Your task to perform on an android device: turn off smart reply in the gmail app Image 0: 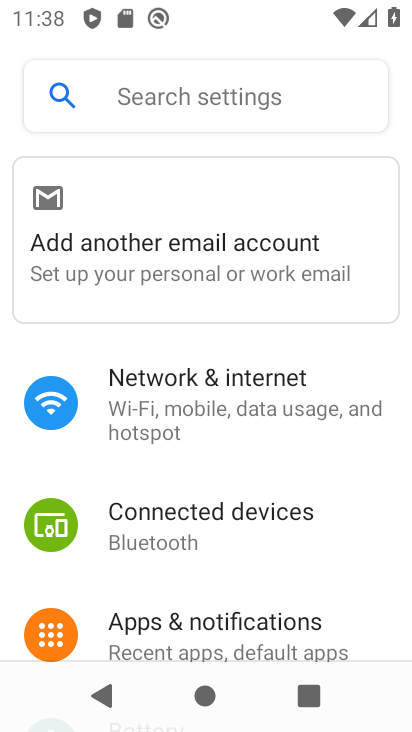
Step 0: press home button
Your task to perform on an android device: turn off smart reply in the gmail app Image 1: 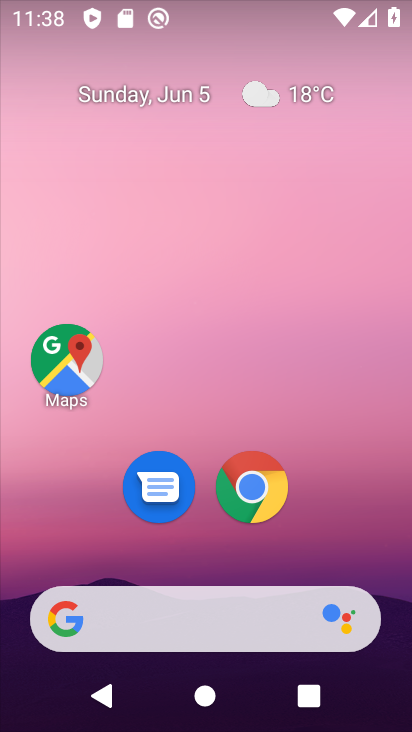
Step 1: drag from (341, 520) to (336, 175)
Your task to perform on an android device: turn off smart reply in the gmail app Image 2: 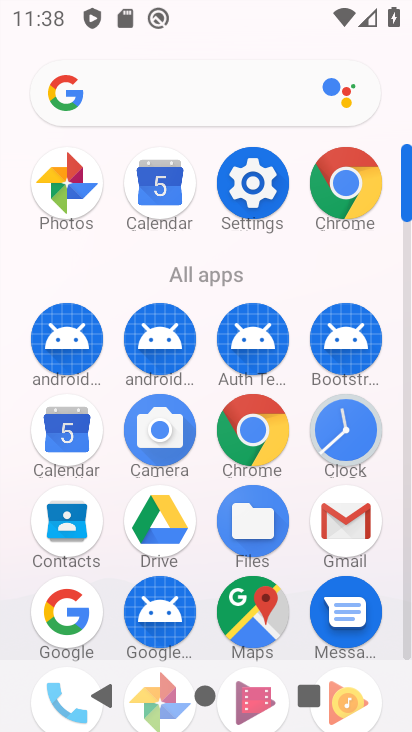
Step 2: click (348, 520)
Your task to perform on an android device: turn off smart reply in the gmail app Image 3: 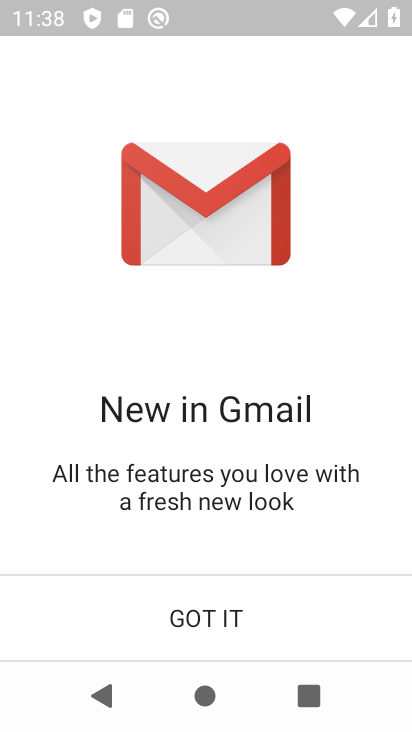
Step 3: click (218, 624)
Your task to perform on an android device: turn off smart reply in the gmail app Image 4: 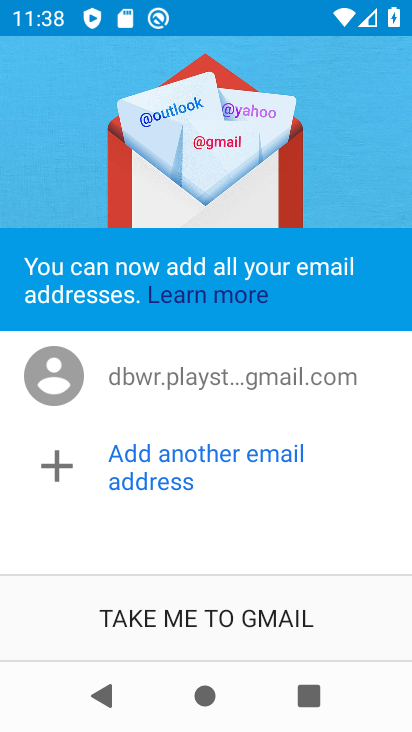
Step 4: click (216, 623)
Your task to perform on an android device: turn off smart reply in the gmail app Image 5: 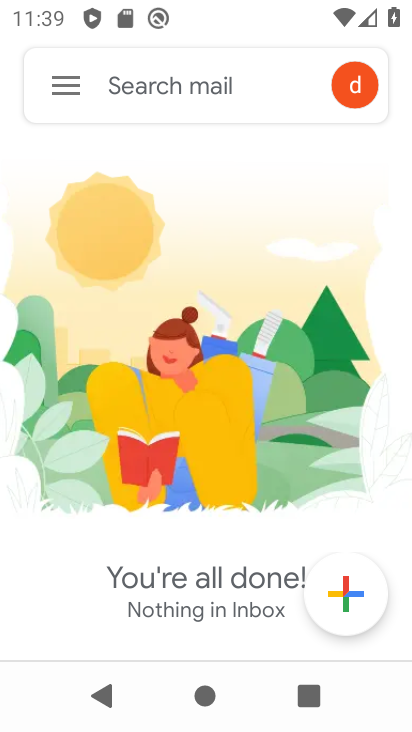
Step 5: click (58, 84)
Your task to perform on an android device: turn off smart reply in the gmail app Image 6: 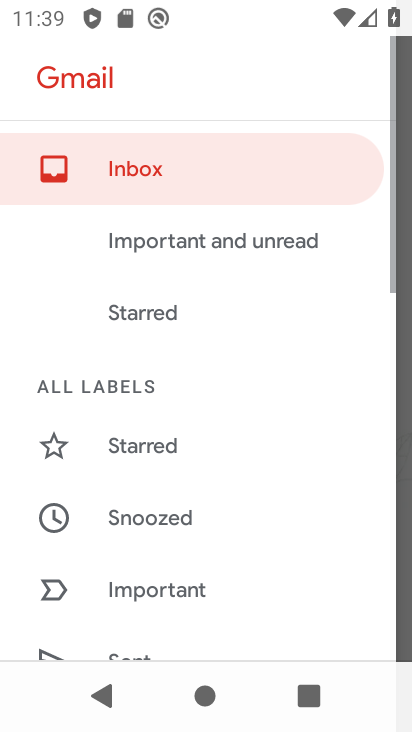
Step 6: drag from (137, 614) to (197, 214)
Your task to perform on an android device: turn off smart reply in the gmail app Image 7: 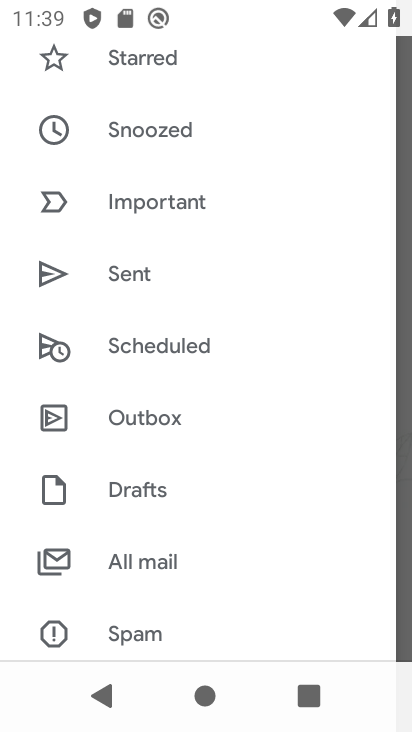
Step 7: drag from (199, 561) to (280, 138)
Your task to perform on an android device: turn off smart reply in the gmail app Image 8: 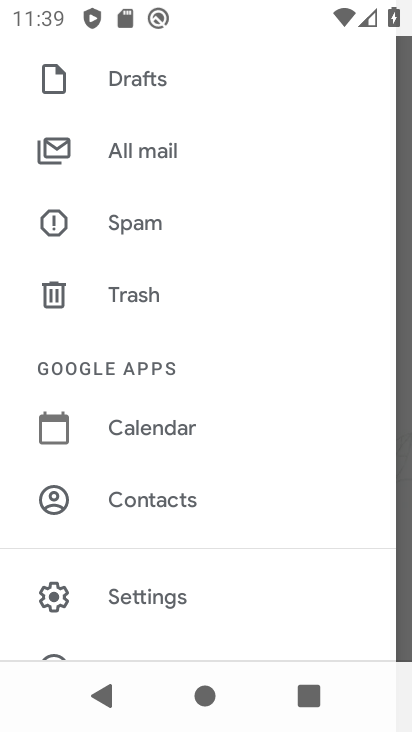
Step 8: click (186, 597)
Your task to perform on an android device: turn off smart reply in the gmail app Image 9: 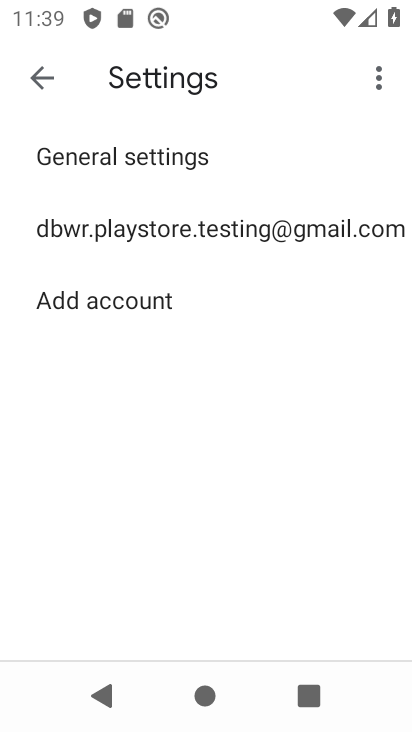
Step 9: click (204, 235)
Your task to perform on an android device: turn off smart reply in the gmail app Image 10: 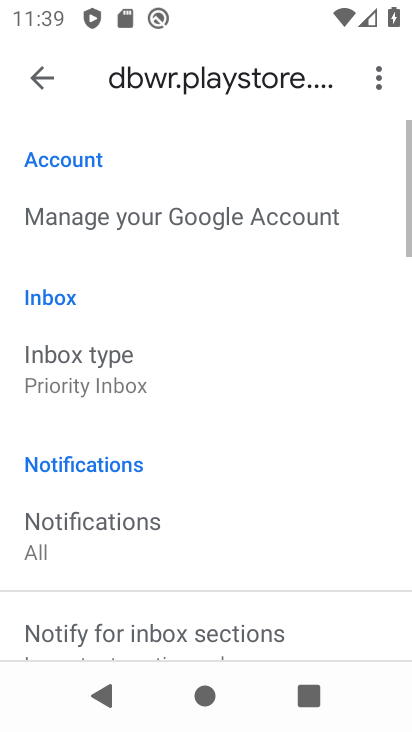
Step 10: drag from (211, 593) to (261, 204)
Your task to perform on an android device: turn off smart reply in the gmail app Image 11: 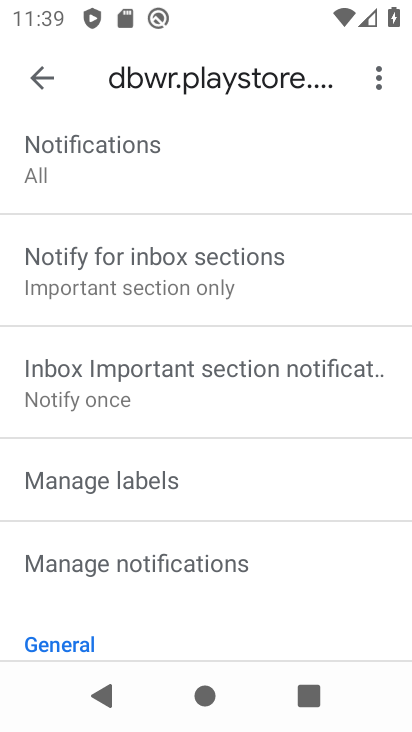
Step 11: drag from (189, 620) to (242, 231)
Your task to perform on an android device: turn off smart reply in the gmail app Image 12: 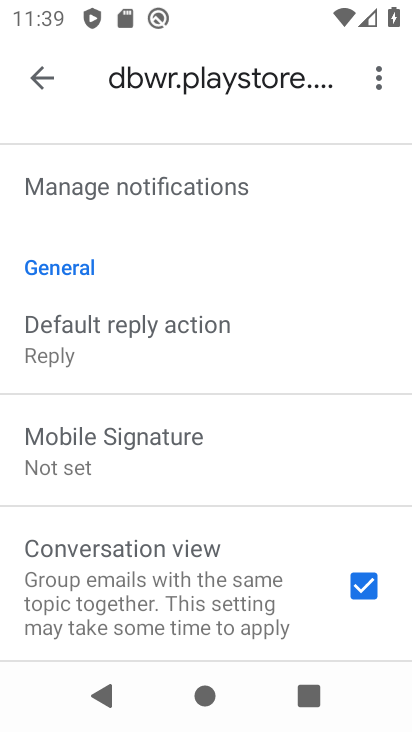
Step 12: drag from (274, 561) to (338, 172)
Your task to perform on an android device: turn off smart reply in the gmail app Image 13: 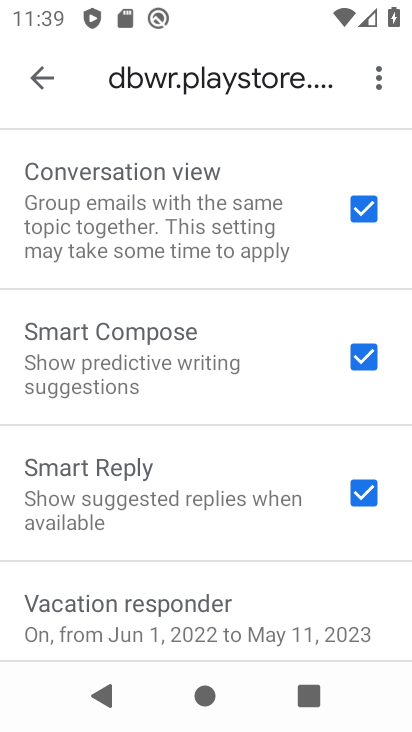
Step 13: click (368, 490)
Your task to perform on an android device: turn off smart reply in the gmail app Image 14: 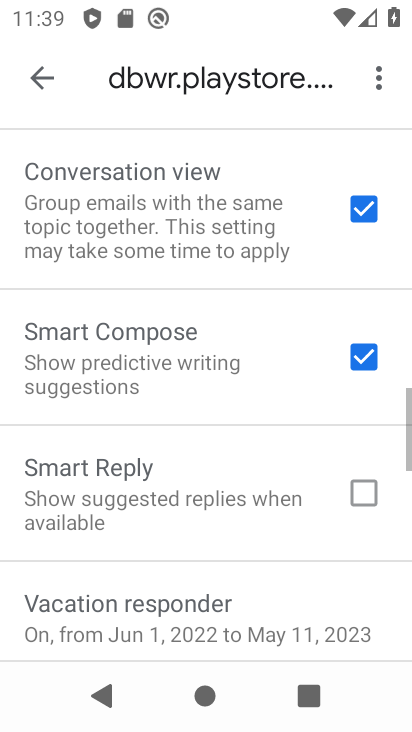
Step 14: task complete